Your task to perform on an android device: open app "Google Play Games" Image 0: 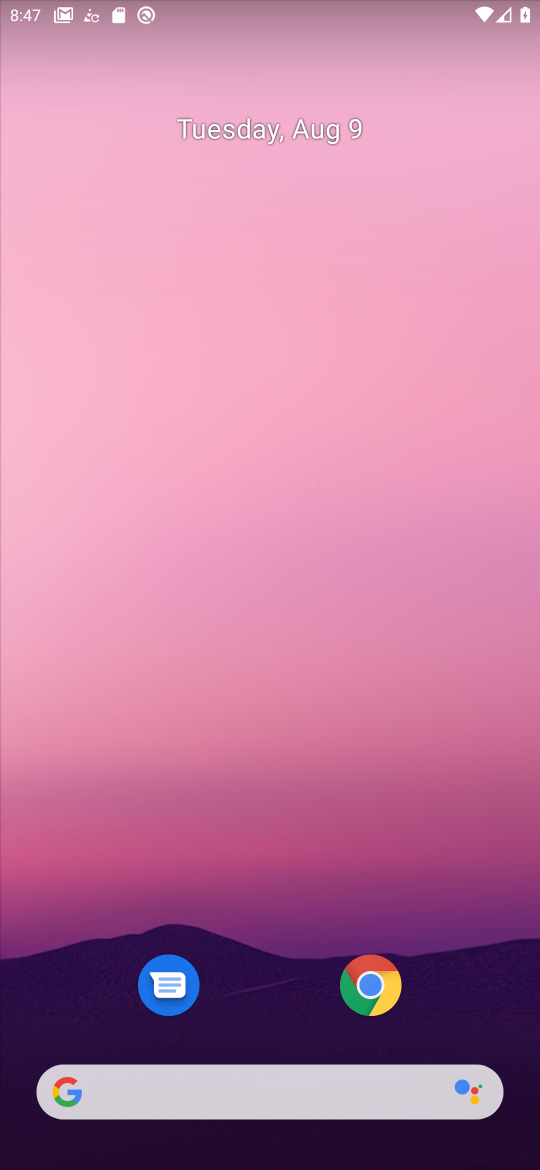
Step 0: drag from (278, 948) to (326, 313)
Your task to perform on an android device: open app "Google Play Games" Image 1: 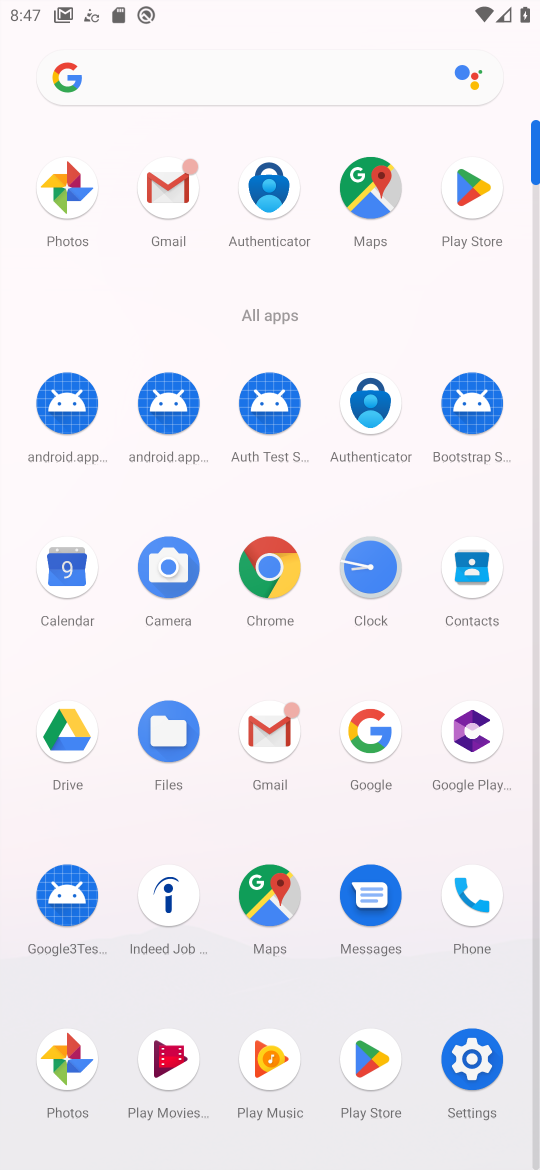
Step 1: click (470, 235)
Your task to perform on an android device: open app "Google Play Games" Image 2: 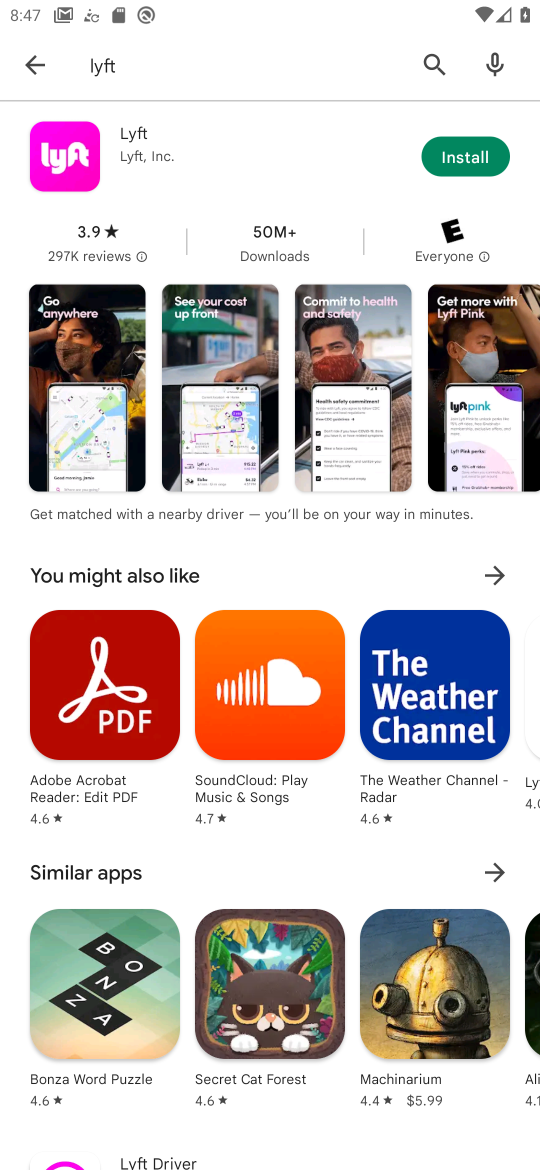
Step 2: click (182, 72)
Your task to perform on an android device: open app "Google Play Games" Image 3: 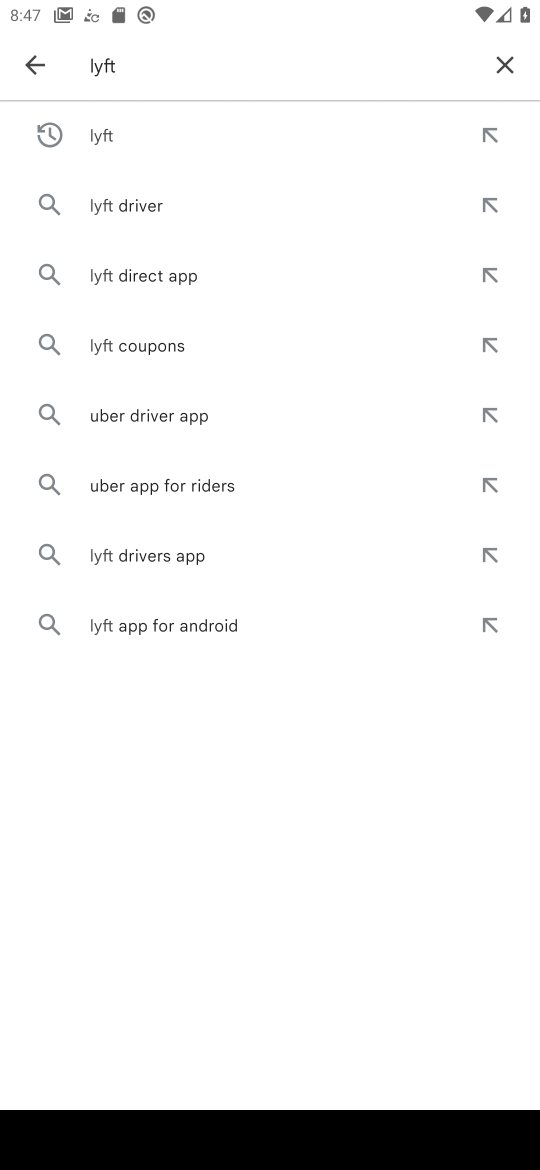
Step 3: click (501, 66)
Your task to perform on an android device: open app "Google Play Games" Image 4: 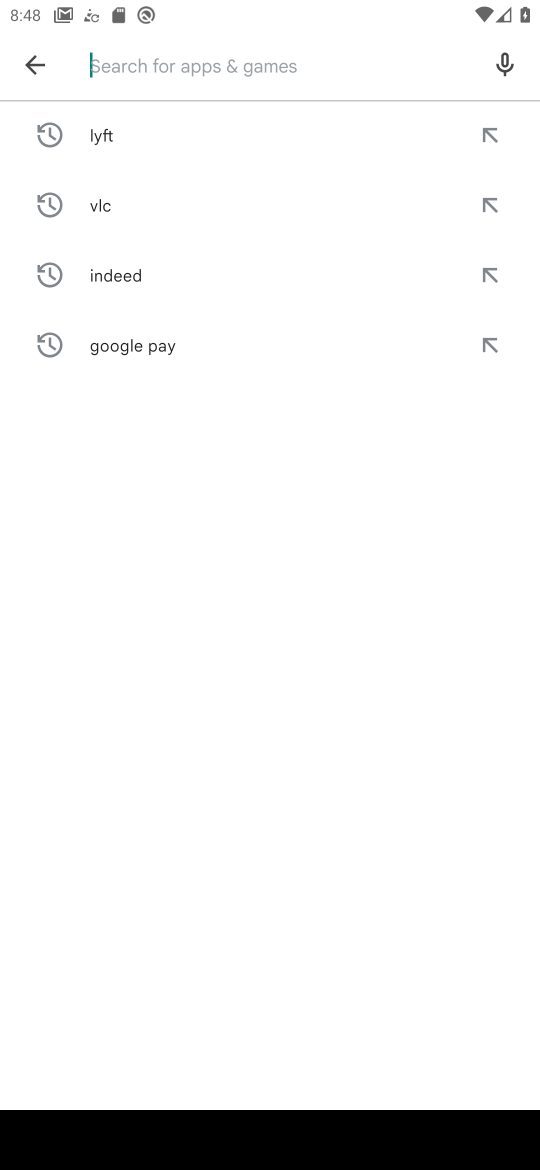
Step 4: type "google play games"
Your task to perform on an android device: open app "Google Play Games" Image 5: 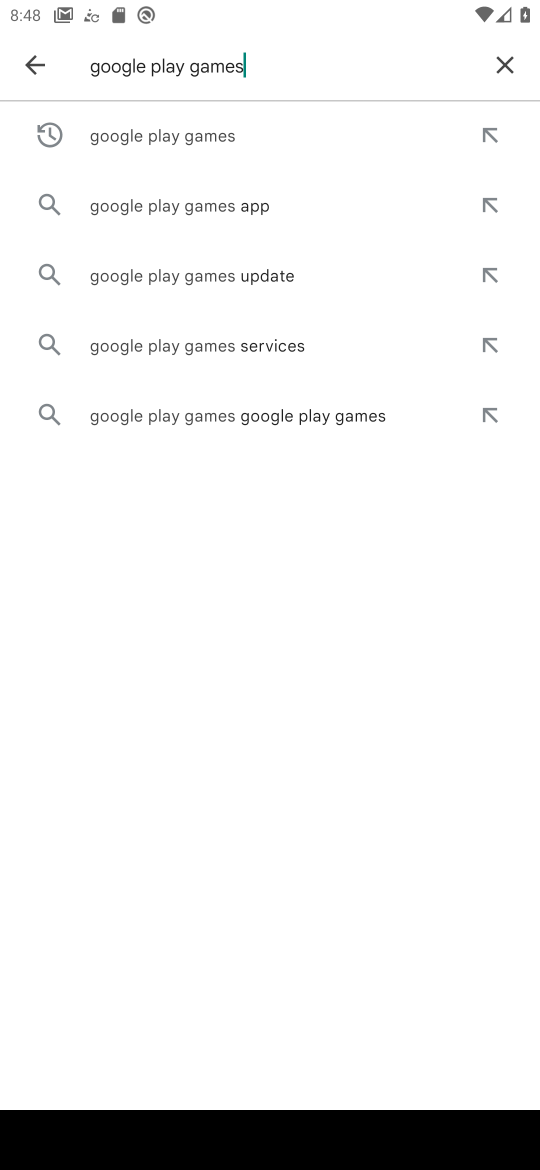
Step 5: click (199, 142)
Your task to perform on an android device: open app "Google Play Games" Image 6: 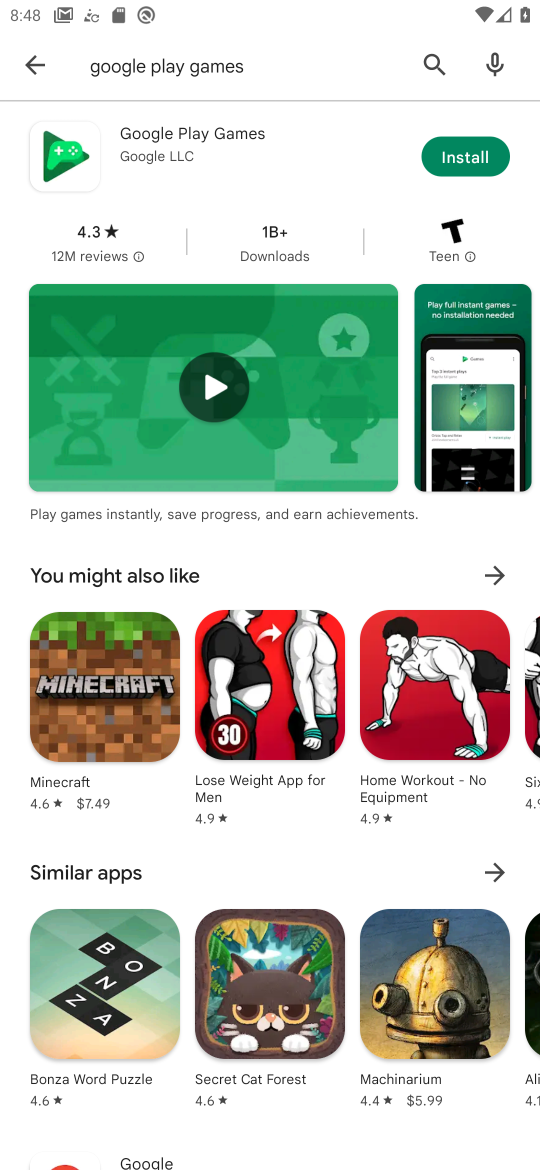
Step 6: task complete